Your task to perform on an android device: Search for sushi restaurants on Maps Image 0: 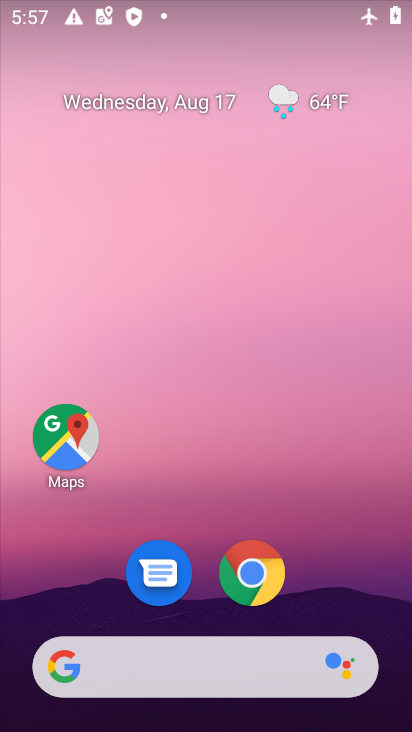
Step 0: drag from (335, 501) to (378, 91)
Your task to perform on an android device: Search for sushi restaurants on Maps Image 1: 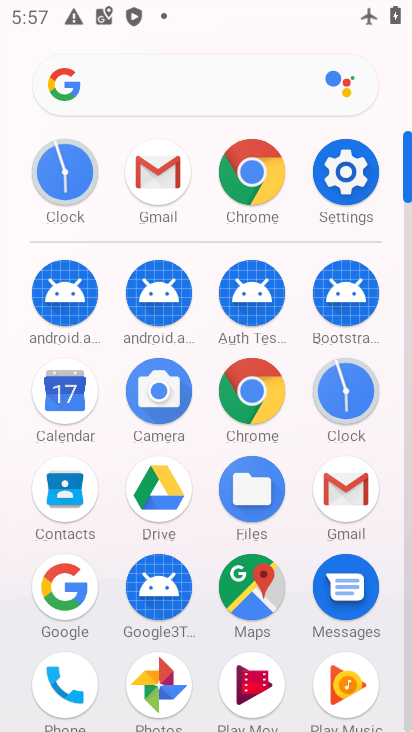
Step 1: click (268, 596)
Your task to perform on an android device: Search for sushi restaurants on Maps Image 2: 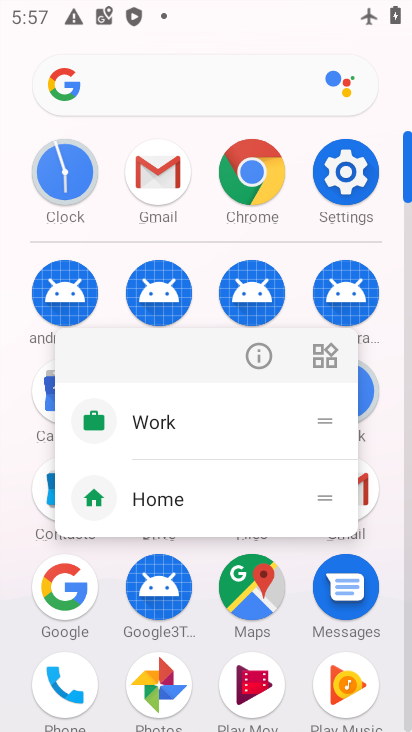
Step 2: click (248, 569)
Your task to perform on an android device: Search for sushi restaurants on Maps Image 3: 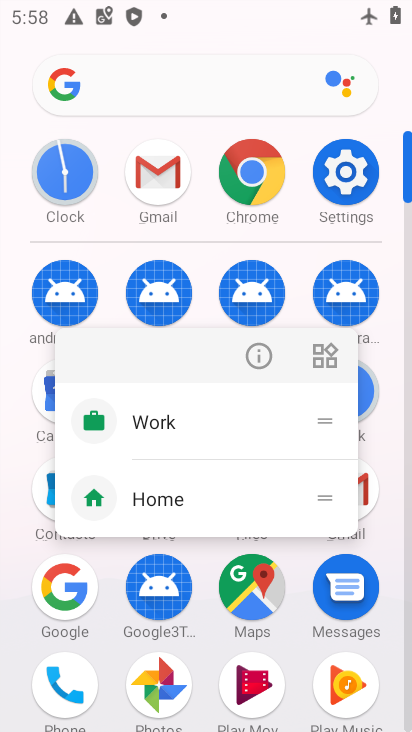
Step 3: click (253, 589)
Your task to perform on an android device: Search for sushi restaurants on Maps Image 4: 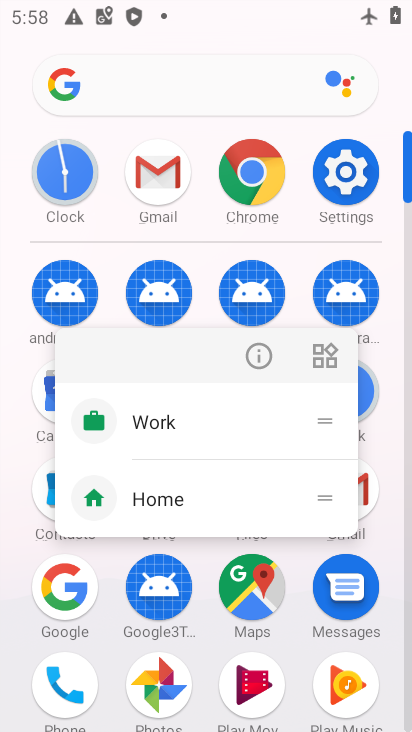
Step 4: click (253, 589)
Your task to perform on an android device: Search for sushi restaurants on Maps Image 5: 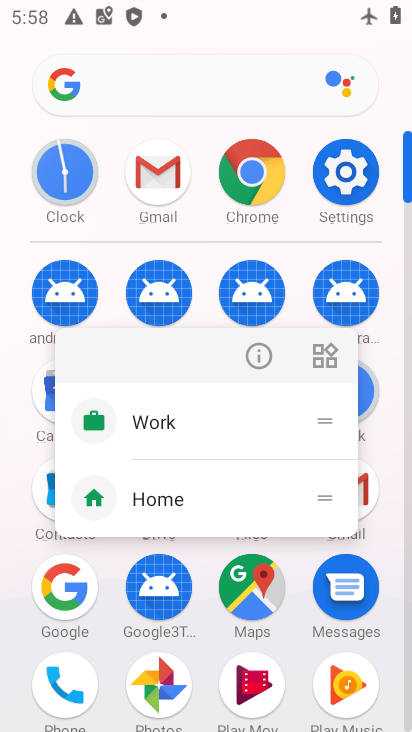
Step 5: click (251, 586)
Your task to perform on an android device: Search for sushi restaurants on Maps Image 6: 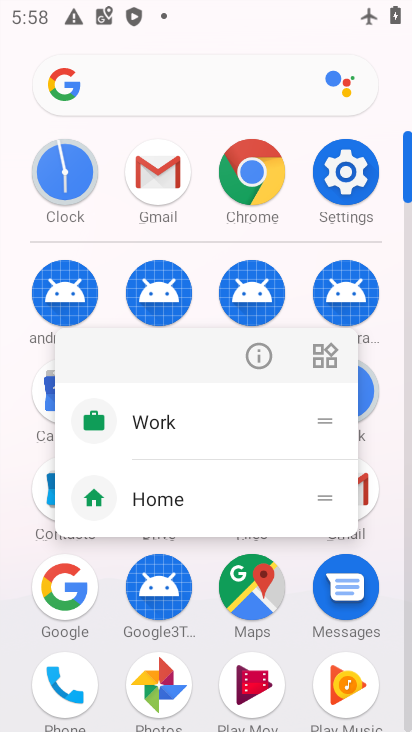
Step 6: click (251, 586)
Your task to perform on an android device: Search for sushi restaurants on Maps Image 7: 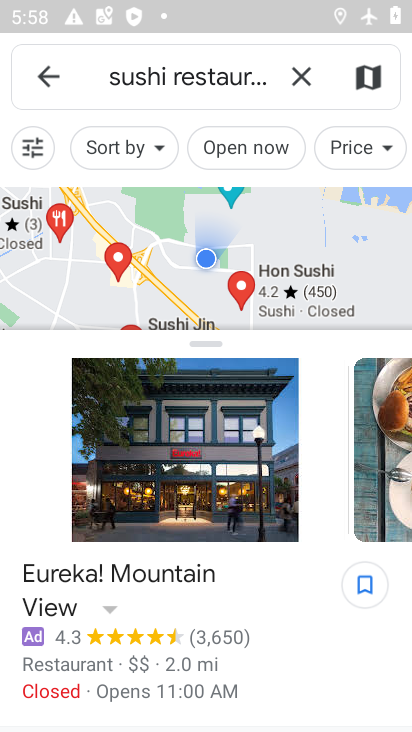
Step 7: task complete